Your task to perform on an android device: toggle translation in the chrome app Image 0: 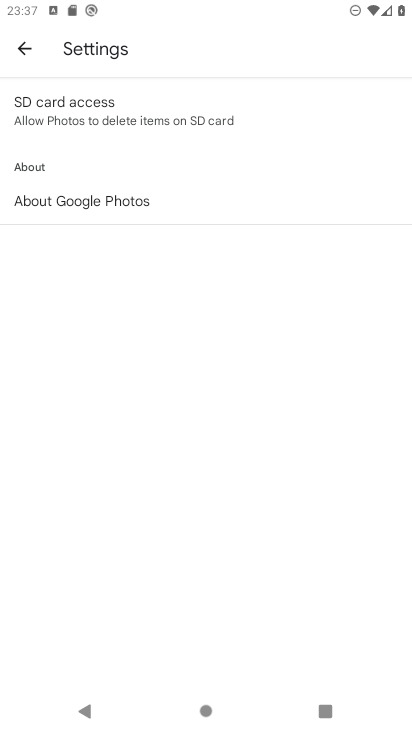
Step 0: press home button
Your task to perform on an android device: toggle translation in the chrome app Image 1: 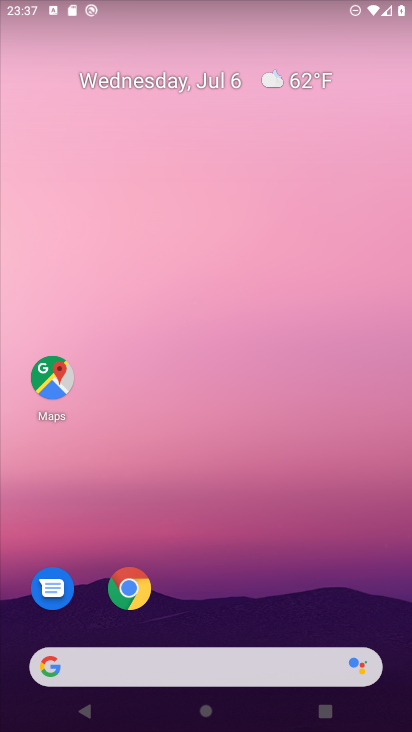
Step 1: click (123, 590)
Your task to perform on an android device: toggle translation in the chrome app Image 2: 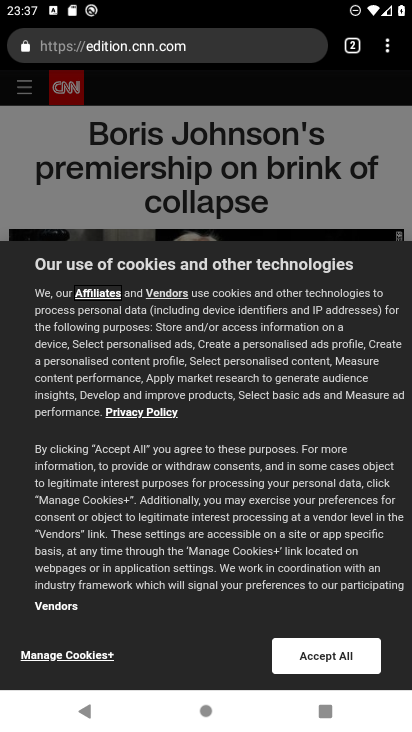
Step 2: click (390, 50)
Your task to perform on an android device: toggle translation in the chrome app Image 3: 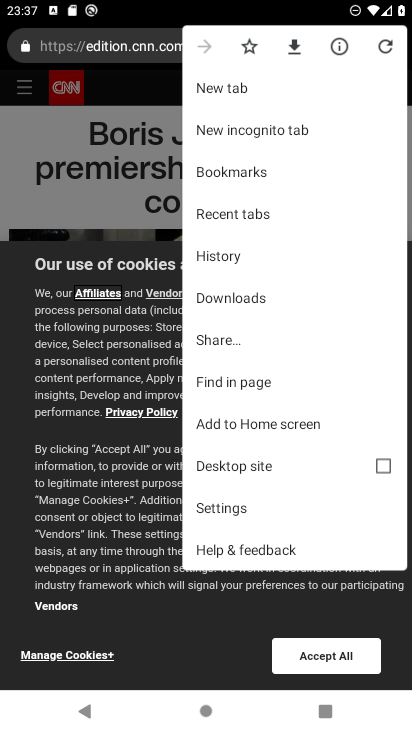
Step 3: click (236, 498)
Your task to perform on an android device: toggle translation in the chrome app Image 4: 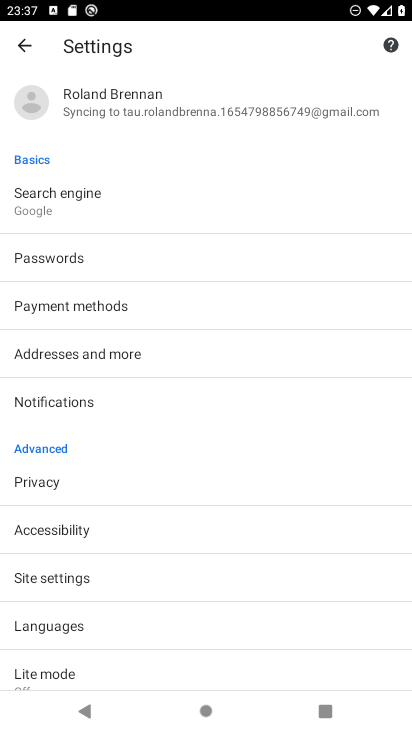
Step 4: click (39, 630)
Your task to perform on an android device: toggle translation in the chrome app Image 5: 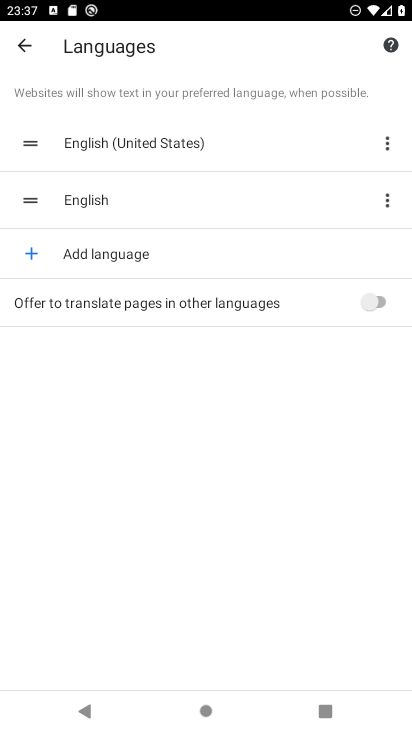
Step 5: click (382, 307)
Your task to perform on an android device: toggle translation in the chrome app Image 6: 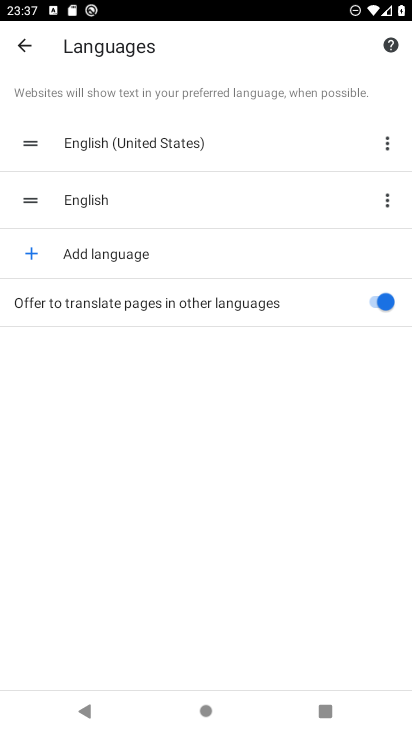
Step 6: task complete